Your task to perform on an android device: turn notification dots on Image 0: 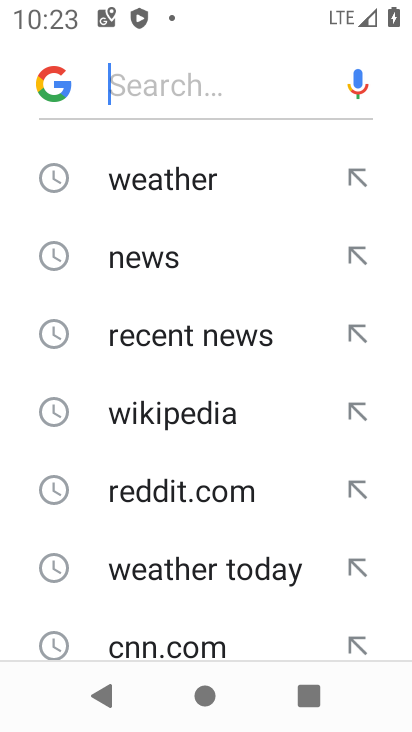
Step 0: press home button
Your task to perform on an android device: turn notification dots on Image 1: 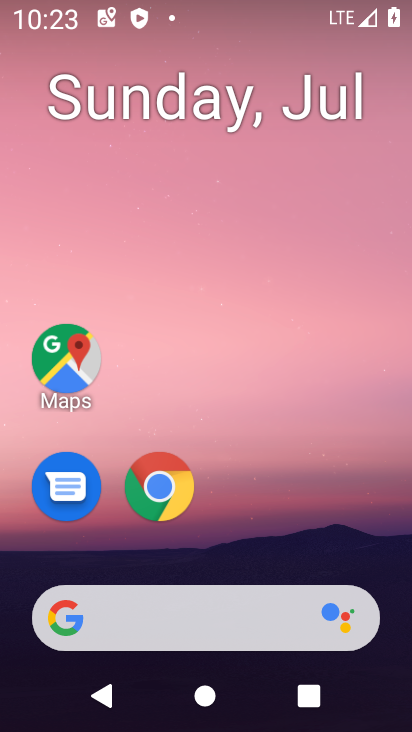
Step 1: drag from (354, 521) to (363, 106)
Your task to perform on an android device: turn notification dots on Image 2: 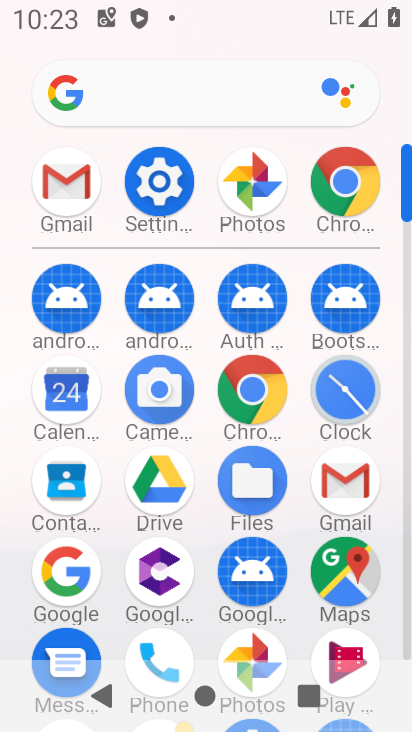
Step 2: click (171, 192)
Your task to perform on an android device: turn notification dots on Image 3: 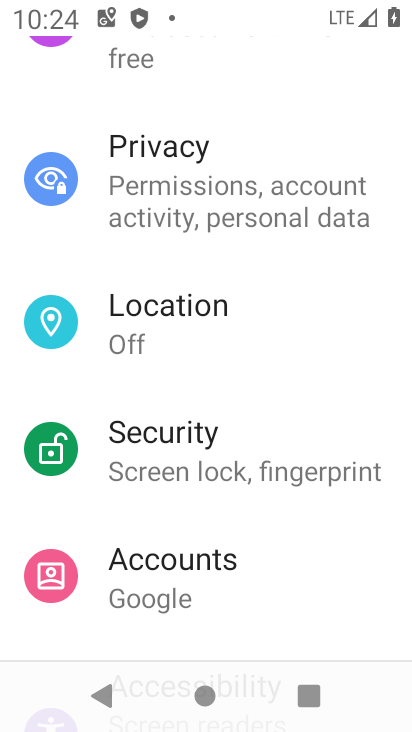
Step 3: drag from (327, 283) to (345, 377)
Your task to perform on an android device: turn notification dots on Image 4: 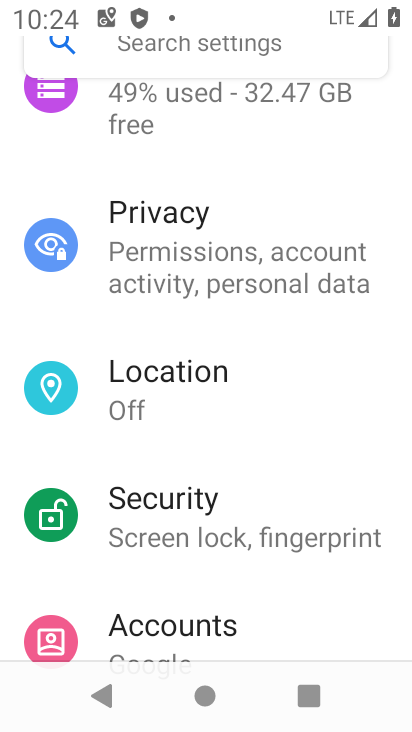
Step 4: drag from (385, 206) to (392, 322)
Your task to perform on an android device: turn notification dots on Image 5: 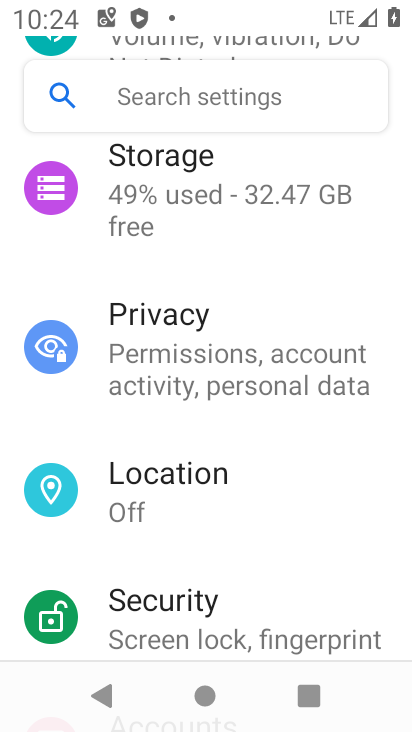
Step 5: drag from (377, 202) to (377, 311)
Your task to perform on an android device: turn notification dots on Image 6: 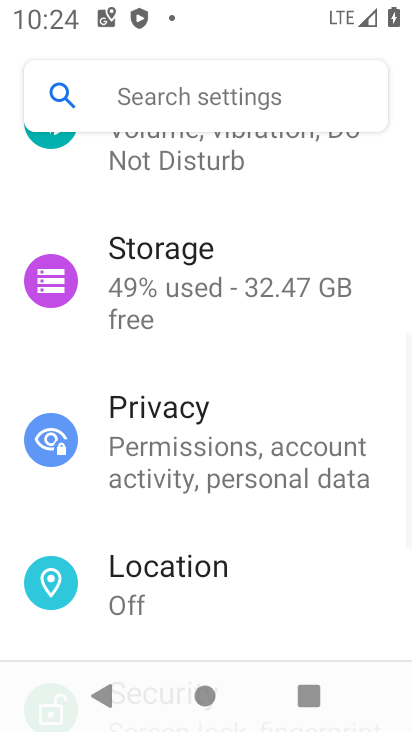
Step 6: drag from (376, 199) to (377, 299)
Your task to perform on an android device: turn notification dots on Image 7: 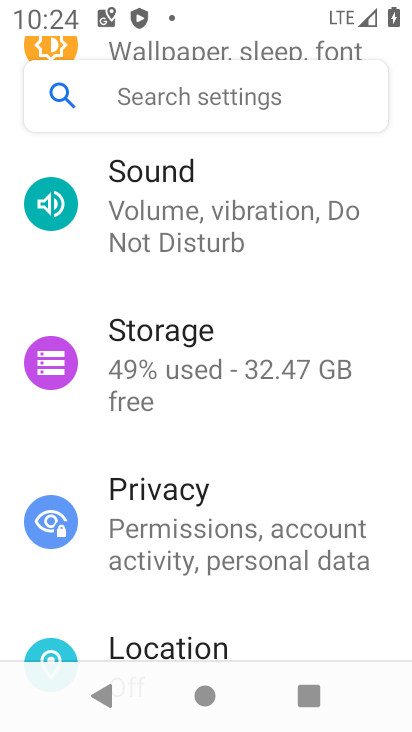
Step 7: drag from (370, 178) to (383, 277)
Your task to perform on an android device: turn notification dots on Image 8: 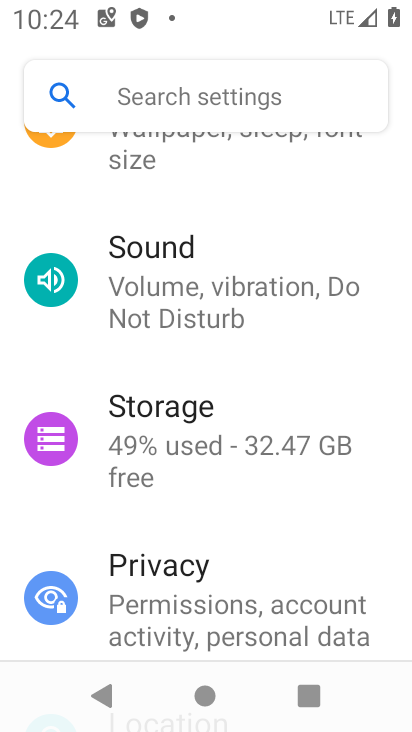
Step 8: drag from (383, 170) to (392, 324)
Your task to perform on an android device: turn notification dots on Image 9: 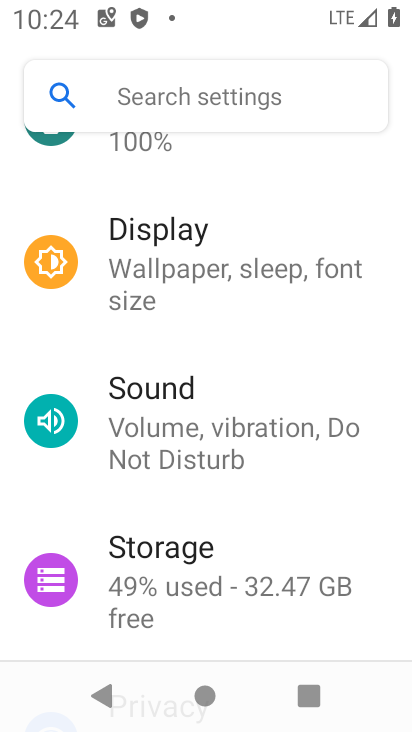
Step 9: drag from (372, 174) to (383, 321)
Your task to perform on an android device: turn notification dots on Image 10: 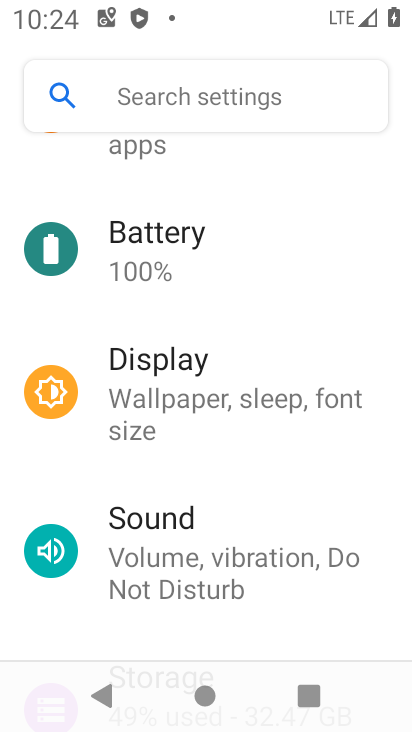
Step 10: drag from (363, 150) to (368, 372)
Your task to perform on an android device: turn notification dots on Image 11: 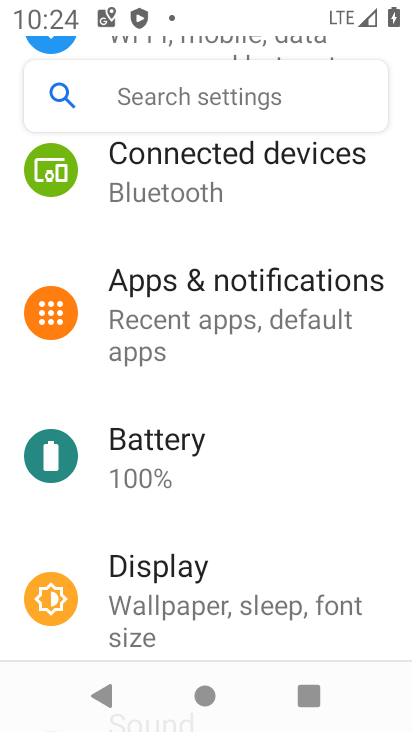
Step 11: drag from (373, 197) to (370, 387)
Your task to perform on an android device: turn notification dots on Image 12: 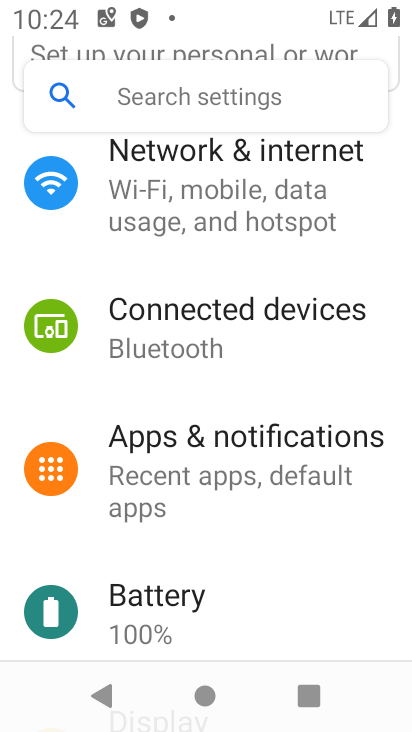
Step 12: click (292, 454)
Your task to perform on an android device: turn notification dots on Image 13: 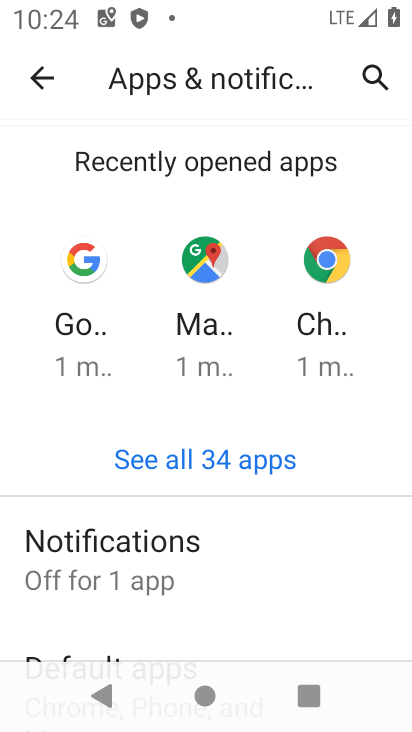
Step 13: click (173, 554)
Your task to perform on an android device: turn notification dots on Image 14: 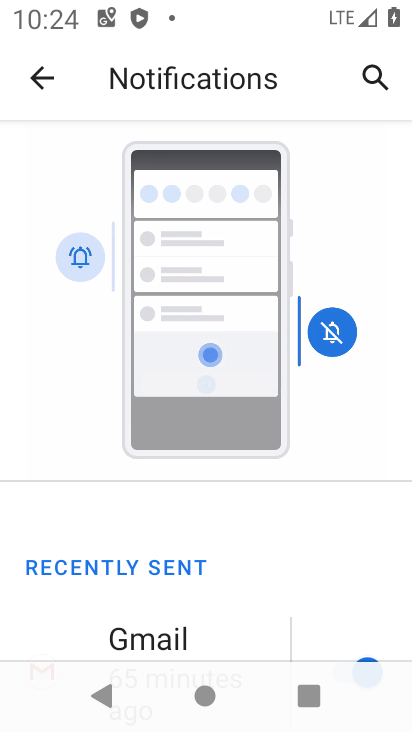
Step 14: drag from (251, 590) to (262, 410)
Your task to perform on an android device: turn notification dots on Image 15: 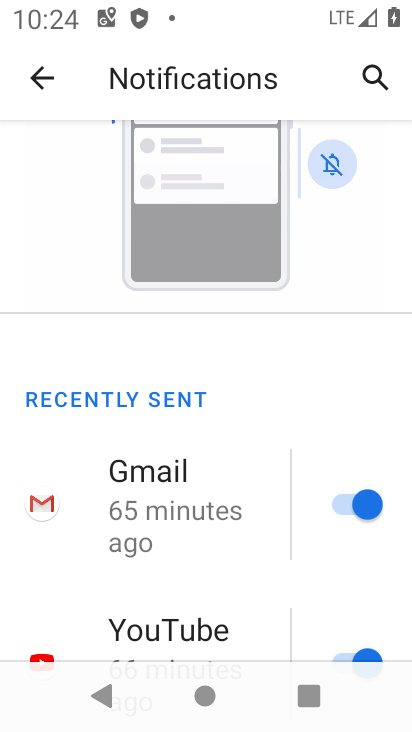
Step 15: drag from (237, 593) to (236, 390)
Your task to perform on an android device: turn notification dots on Image 16: 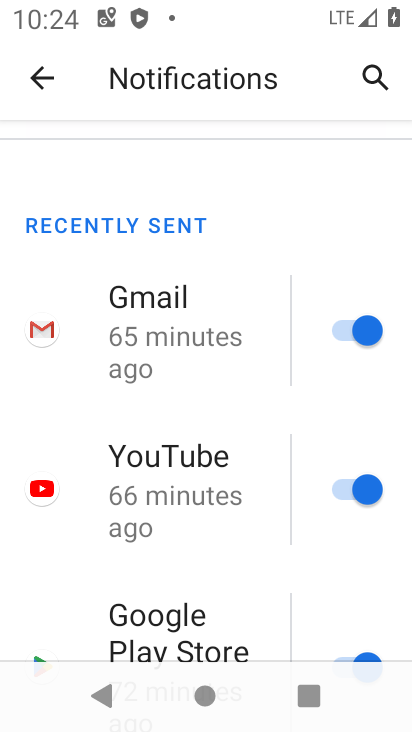
Step 16: drag from (247, 594) to (258, 403)
Your task to perform on an android device: turn notification dots on Image 17: 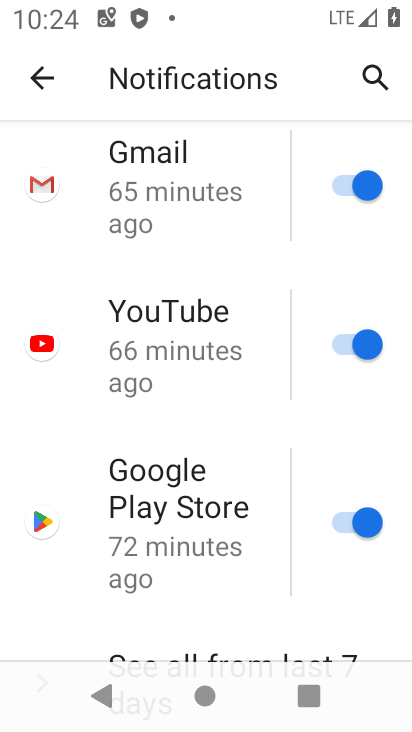
Step 17: drag from (244, 606) to (250, 428)
Your task to perform on an android device: turn notification dots on Image 18: 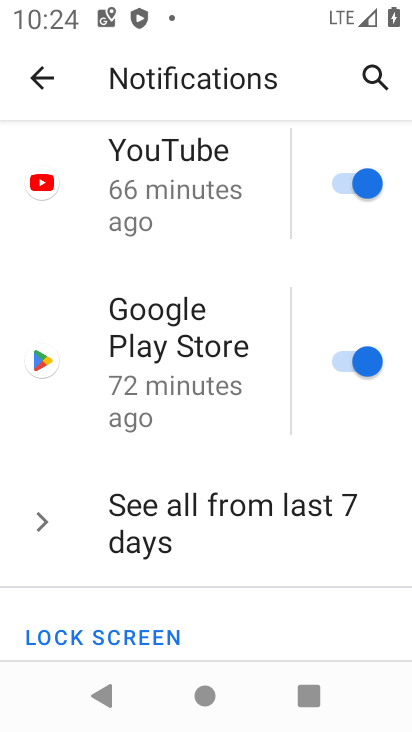
Step 18: drag from (244, 611) to (244, 433)
Your task to perform on an android device: turn notification dots on Image 19: 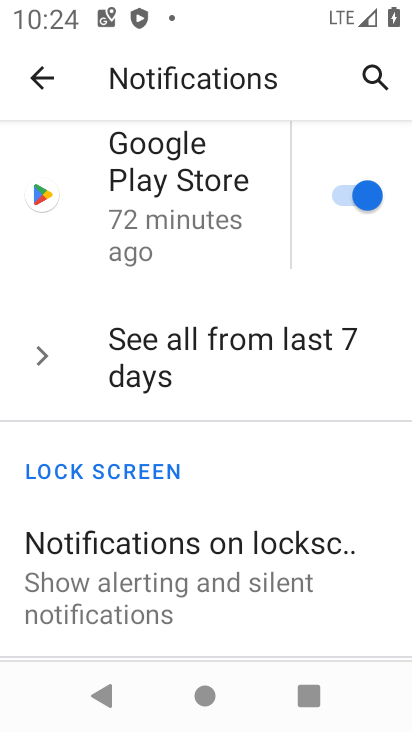
Step 19: drag from (234, 636) to (236, 447)
Your task to perform on an android device: turn notification dots on Image 20: 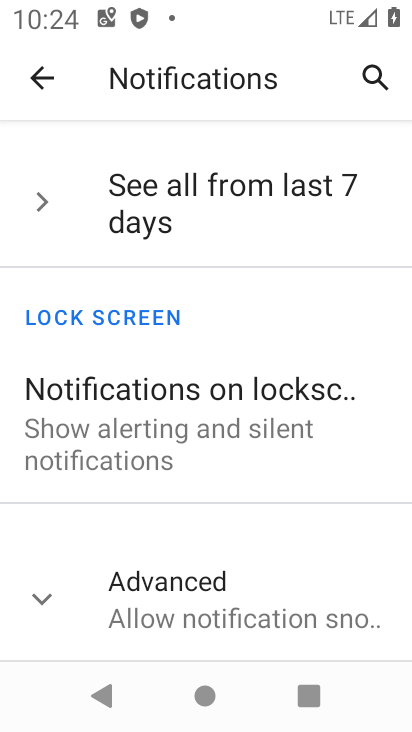
Step 20: click (257, 568)
Your task to perform on an android device: turn notification dots on Image 21: 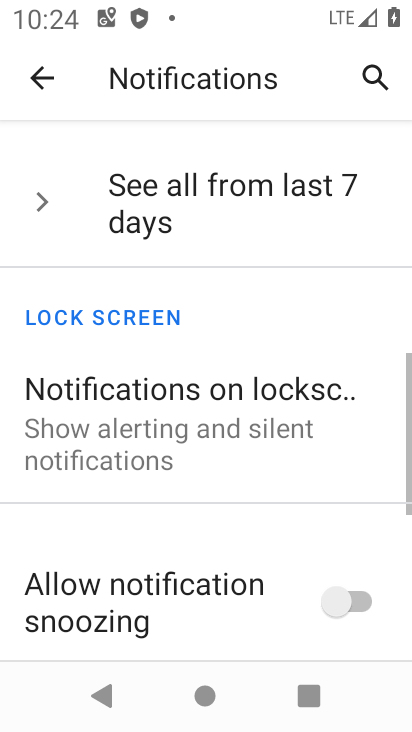
Step 21: task complete